Your task to perform on an android device: Open Maps and search for coffee Image 0: 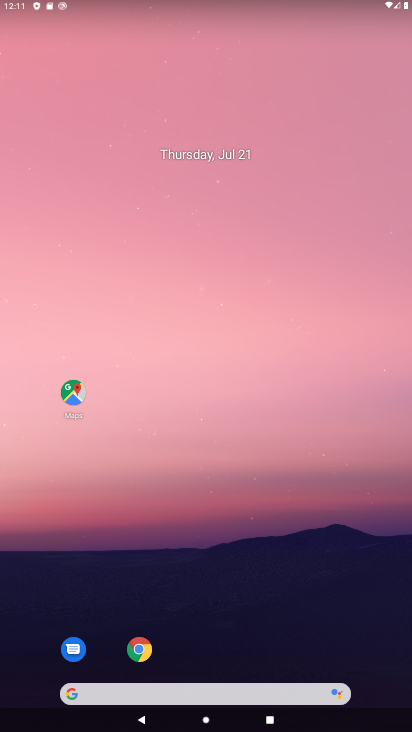
Step 0: click (75, 392)
Your task to perform on an android device: Open Maps and search for coffee Image 1: 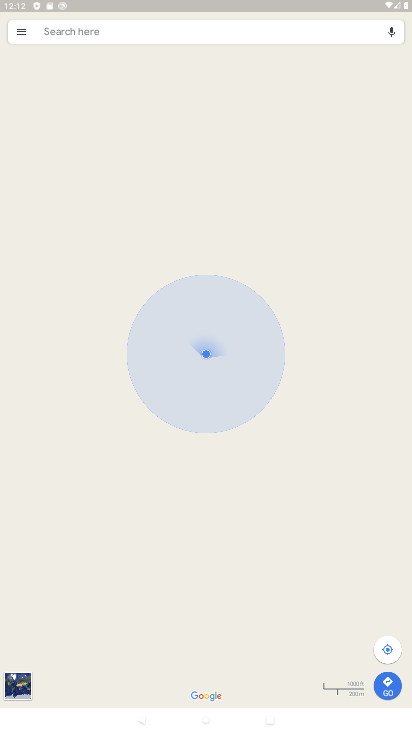
Step 1: click (112, 30)
Your task to perform on an android device: Open Maps and search for coffee Image 2: 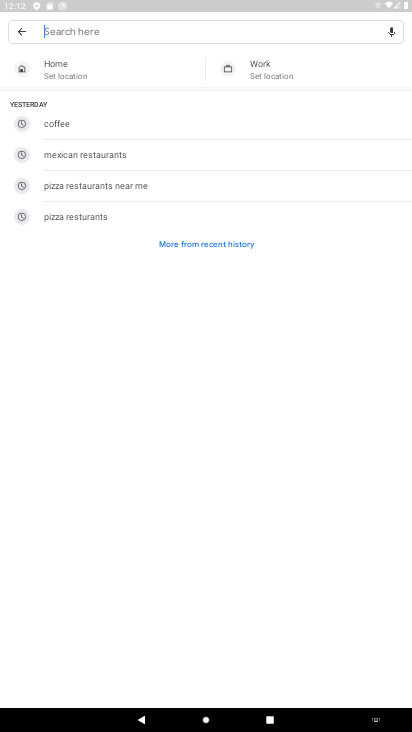
Step 2: type "coffee"
Your task to perform on an android device: Open Maps and search for coffee Image 3: 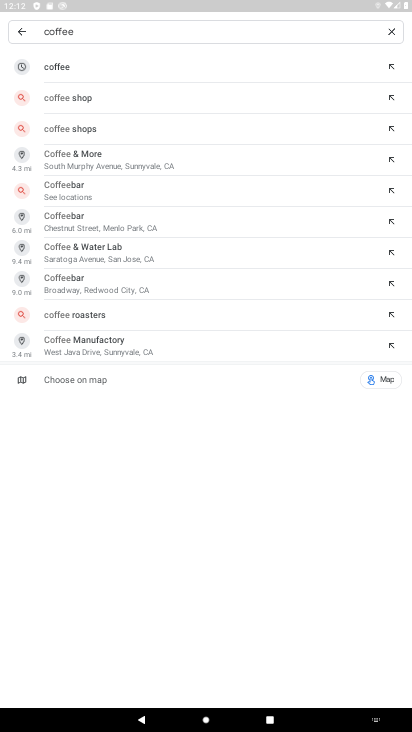
Step 3: click (55, 66)
Your task to perform on an android device: Open Maps and search for coffee Image 4: 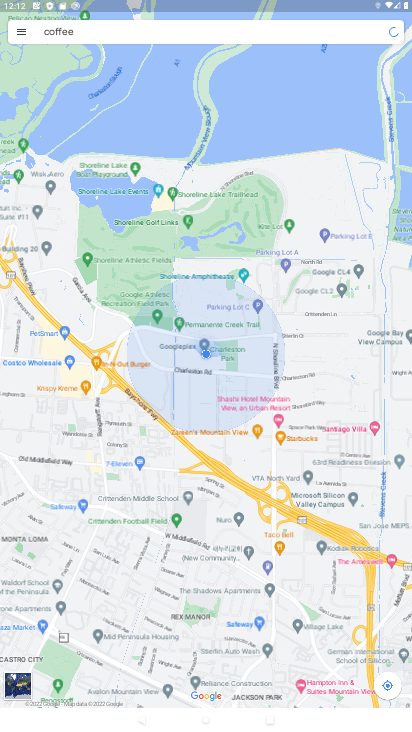
Step 4: task complete